Your task to perform on an android device: find photos in the google photos app Image 0: 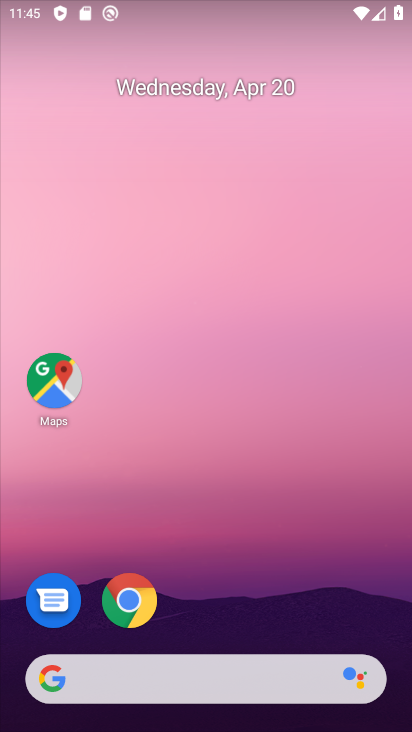
Step 0: drag from (301, 515) to (285, 114)
Your task to perform on an android device: find photos in the google photos app Image 1: 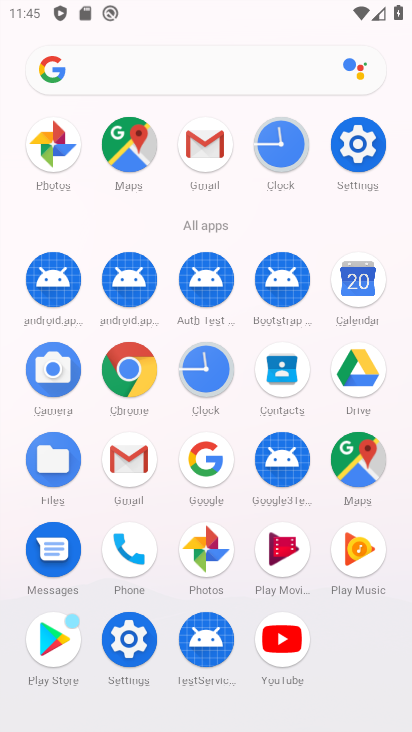
Step 1: click (51, 134)
Your task to perform on an android device: find photos in the google photos app Image 2: 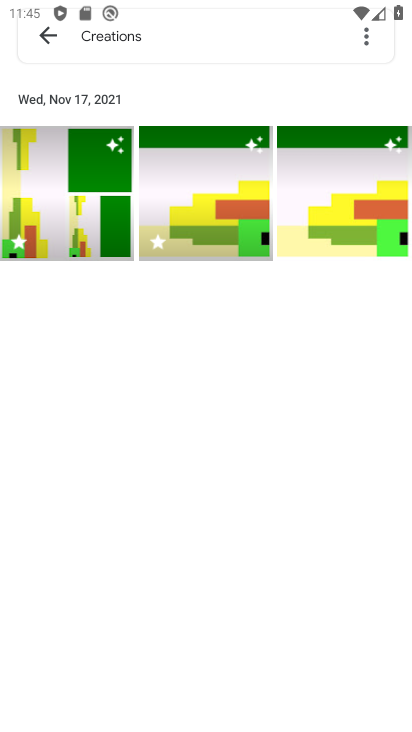
Step 2: click (47, 28)
Your task to perform on an android device: find photos in the google photos app Image 3: 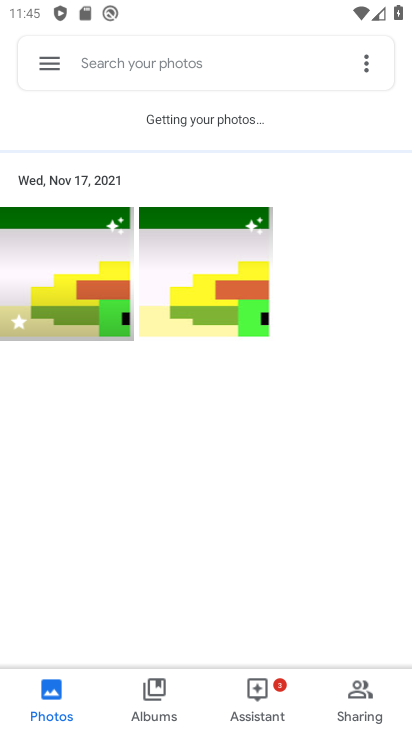
Step 3: task complete